Your task to perform on an android device: Open the calendar and show me this week's events? Image 0: 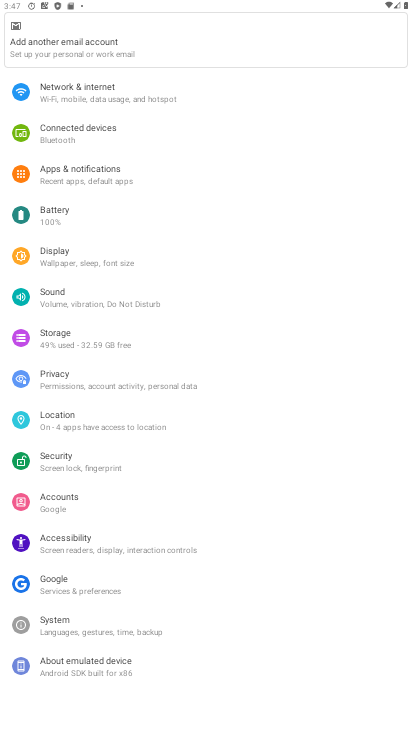
Step 0: press home button
Your task to perform on an android device: Open the calendar and show me this week's events? Image 1: 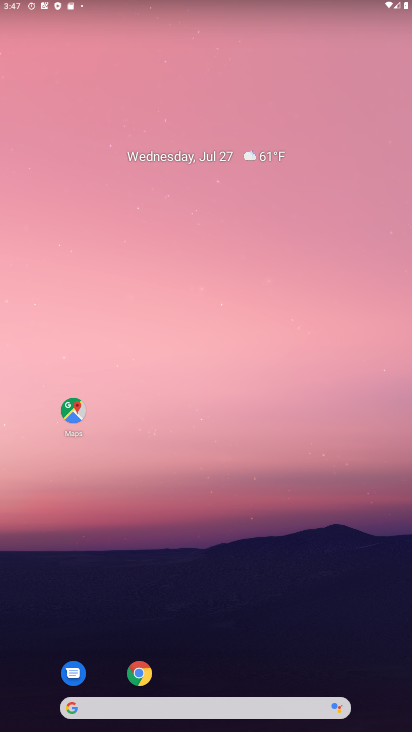
Step 1: drag from (31, 698) to (220, 99)
Your task to perform on an android device: Open the calendar and show me this week's events? Image 2: 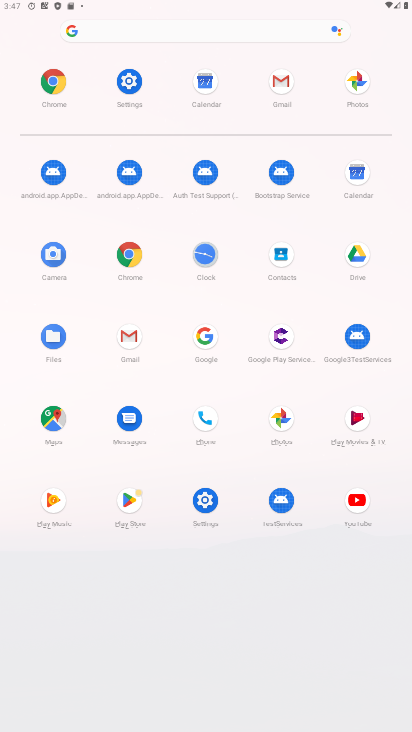
Step 2: click (356, 169)
Your task to perform on an android device: Open the calendar and show me this week's events? Image 3: 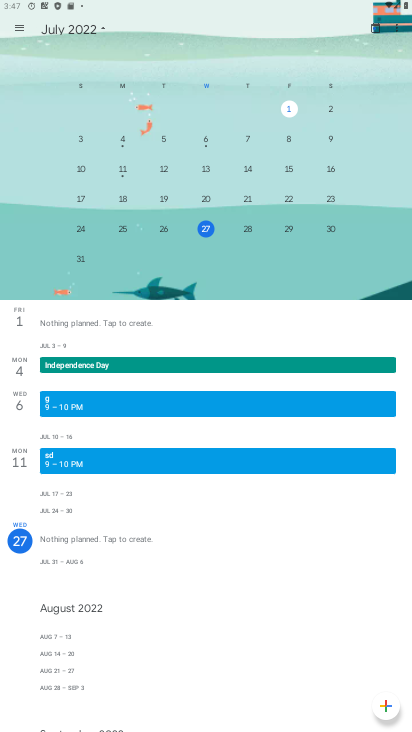
Step 3: task complete